Your task to perform on an android device: empty trash in google photos Image 0: 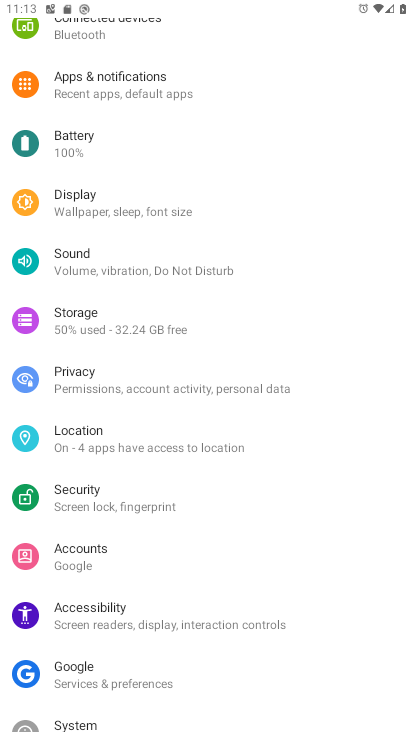
Step 0: task complete